Your task to perform on an android device: Play the last video I watched on Youtube Image 0: 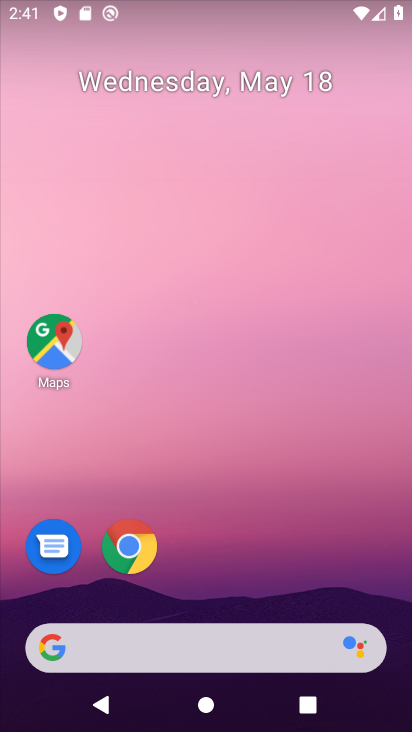
Step 0: drag from (212, 619) to (323, 174)
Your task to perform on an android device: Play the last video I watched on Youtube Image 1: 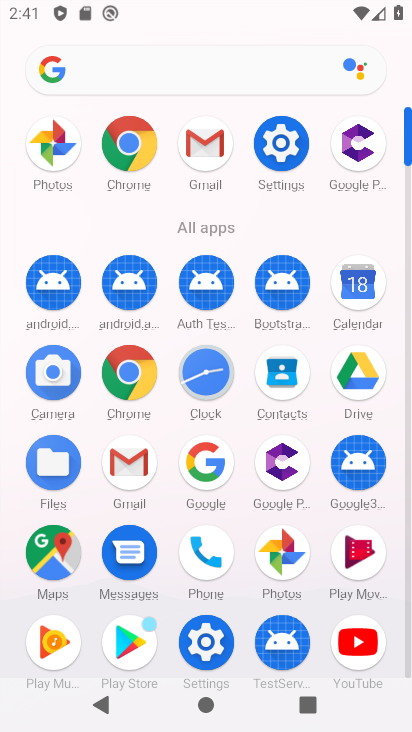
Step 1: drag from (215, 613) to (282, 414)
Your task to perform on an android device: Play the last video I watched on Youtube Image 2: 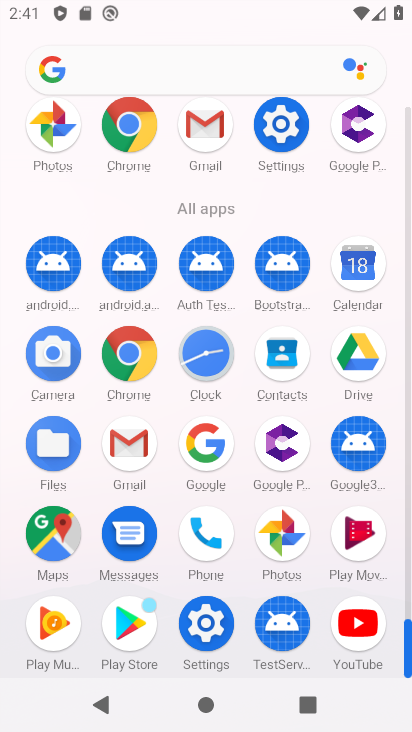
Step 2: click (366, 619)
Your task to perform on an android device: Play the last video I watched on Youtube Image 3: 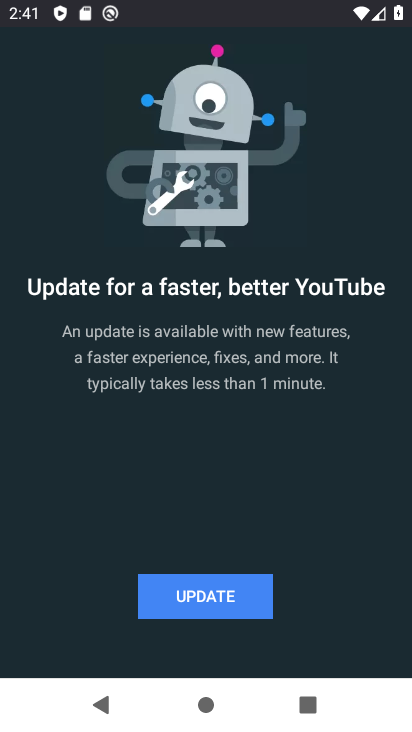
Step 3: click (263, 609)
Your task to perform on an android device: Play the last video I watched on Youtube Image 4: 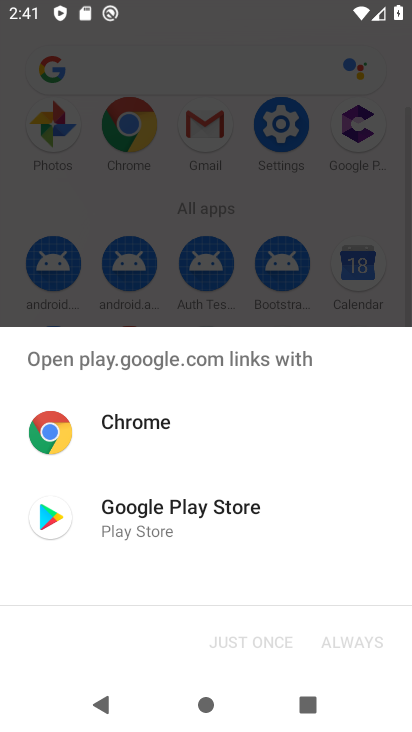
Step 4: click (326, 609)
Your task to perform on an android device: Play the last video I watched on Youtube Image 5: 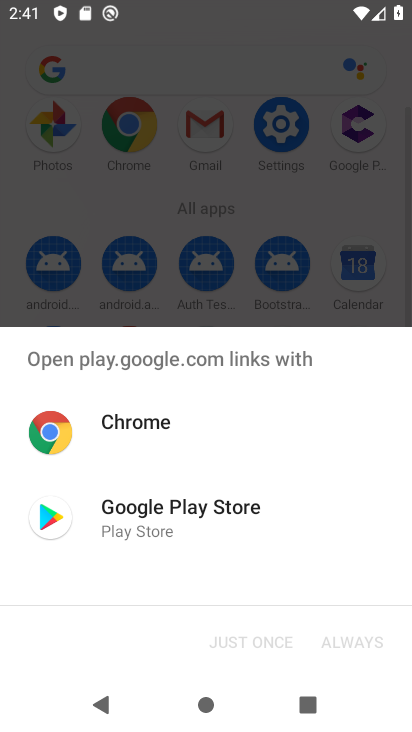
Step 5: click (326, 609)
Your task to perform on an android device: Play the last video I watched on Youtube Image 6: 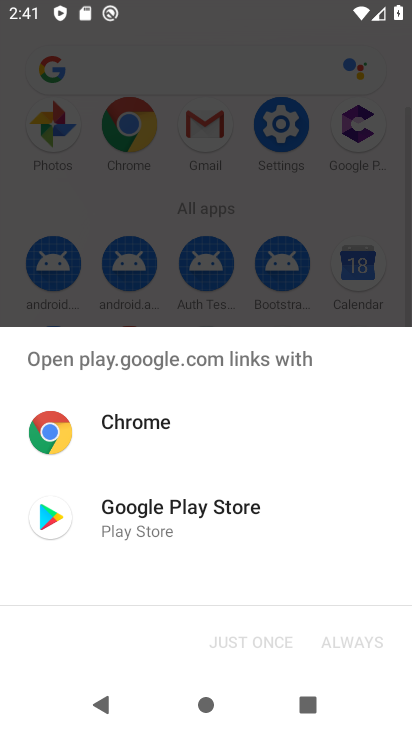
Step 6: click (326, 609)
Your task to perform on an android device: Play the last video I watched on Youtube Image 7: 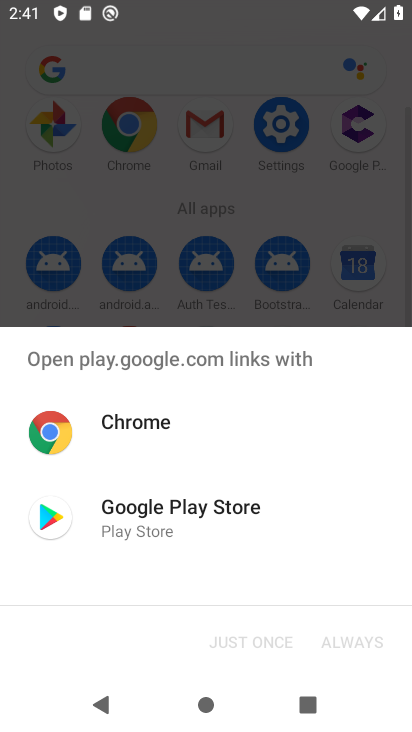
Step 7: click (326, 609)
Your task to perform on an android device: Play the last video I watched on Youtube Image 8: 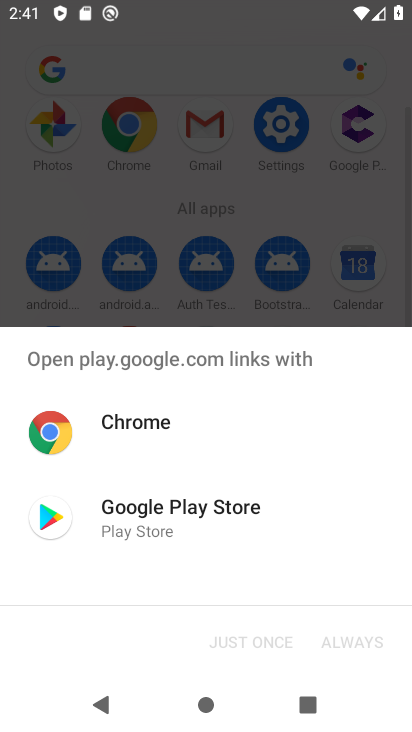
Step 8: click (207, 526)
Your task to perform on an android device: Play the last video I watched on Youtube Image 9: 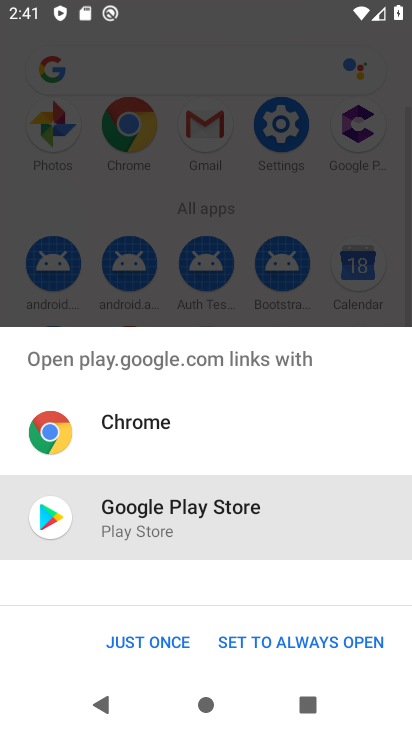
Step 9: click (150, 635)
Your task to perform on an android device: Play the last video I watched on Youtube Image 10: 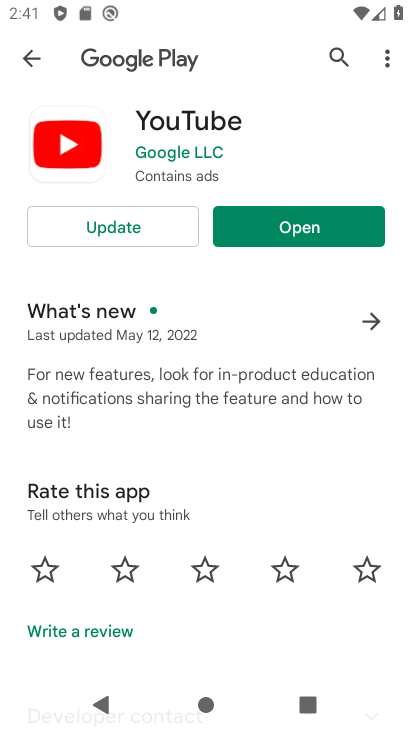
Step 10: click (180, 237)
Your task to perform on an android device: Play the last video I watched on Youtube Image 11: 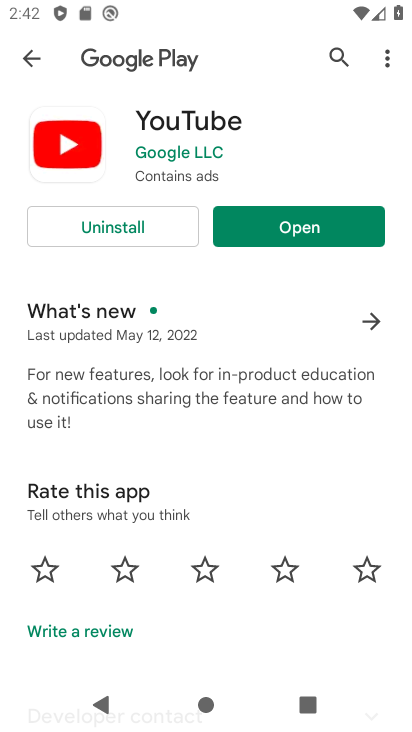
Step 11: click (312, 250)
Your task to perform on an android device: Play the last video I watched on Youtube Image 12: 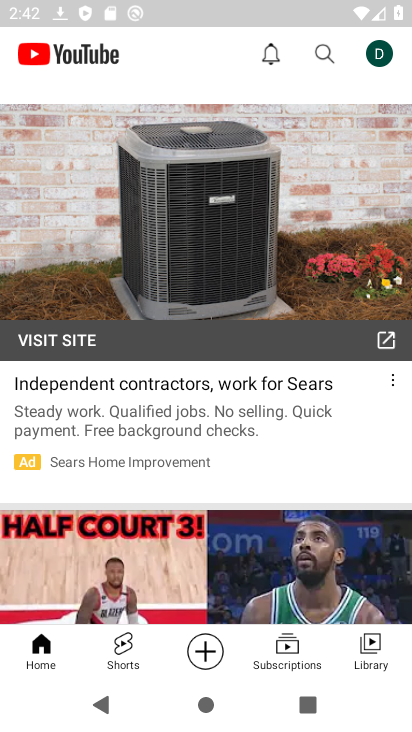
Step 12: click (393, 657)
Your task to perform on an android device: Play the last video I watched on Youtube Image 13: 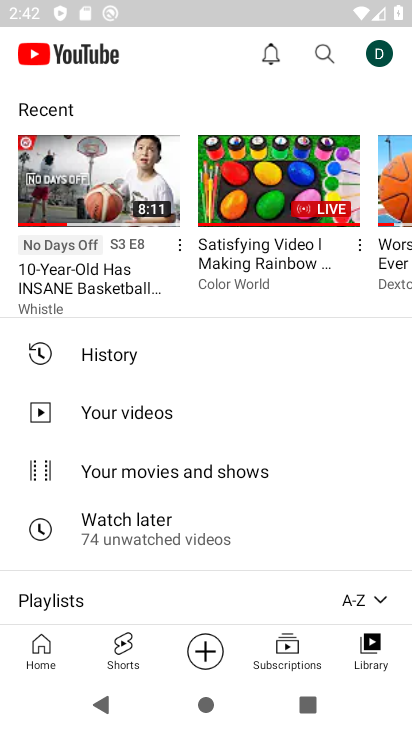
Step 13: click (122, 202)
Your task to perform on an android device: Play the last video I watched on Youtube Image 14: 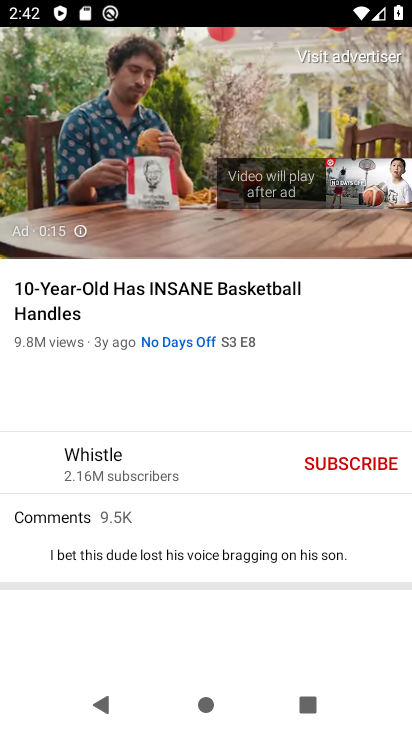
Step 14: task complete